Your task to perform on an android device: change alarm snooze length Image 0: 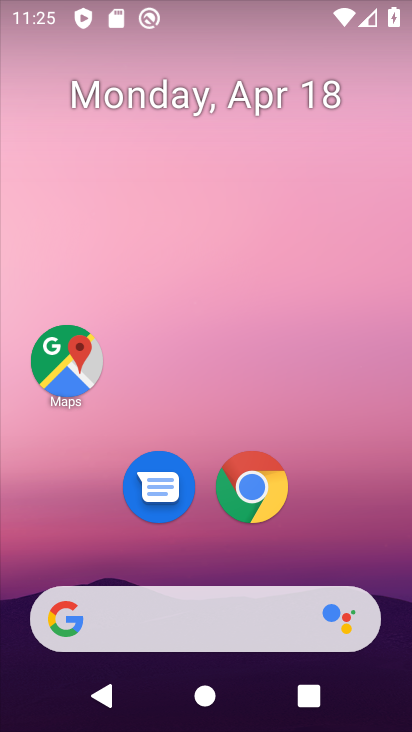
Step 0: drag from (208, 569) to (199, 0)
Your task to perform on an android device: change alarm snooze length Image 1: 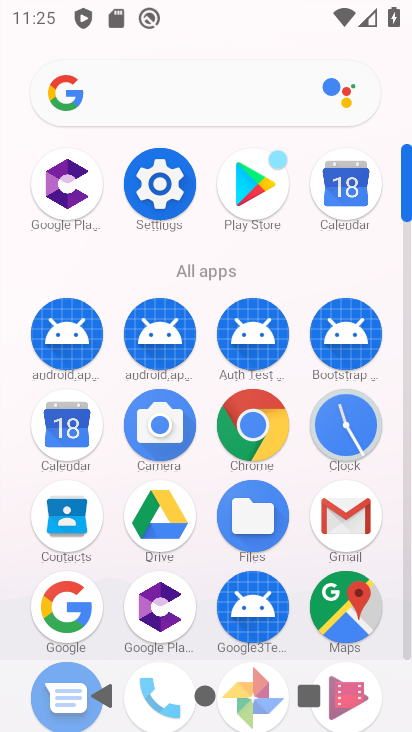
Step 1: click (349, 426)
Your task to perform on an android device: change alarm snooze length Image 2: 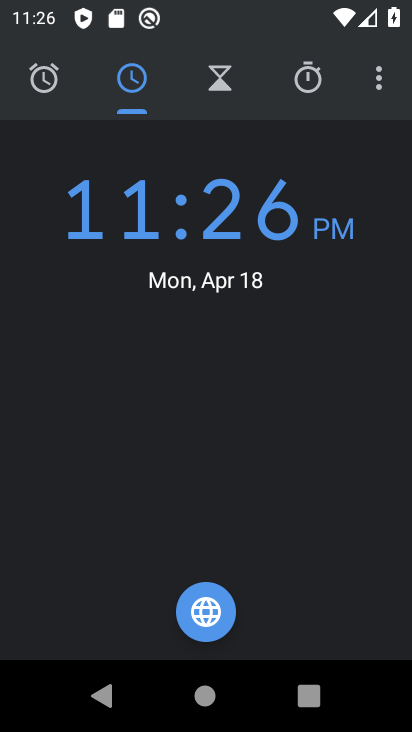
Step 2: click (377, 85)
Your task to perform on an android device: change alarm snooze length Image 3: 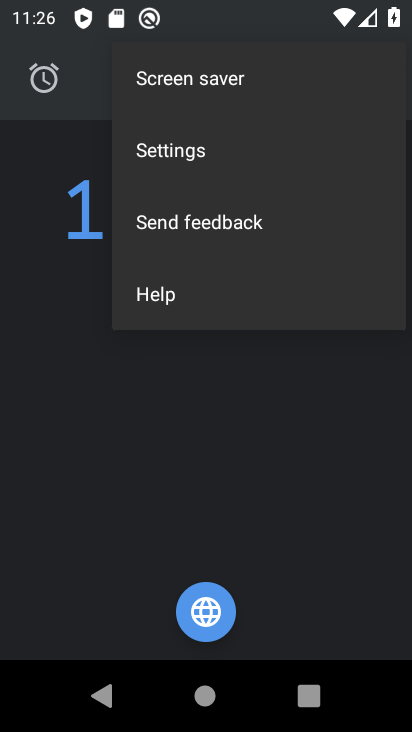
Step 3: click (185, 152)
Your task to perform on an android device: change alarm snooze length Image 4: 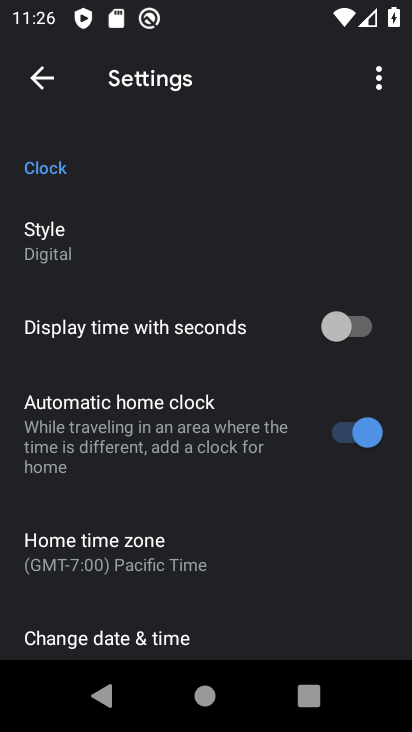
Step 4: drag from (216, 528) to (183, 172)
Your task to perform on an android device: change alarm snooze length Image 5: 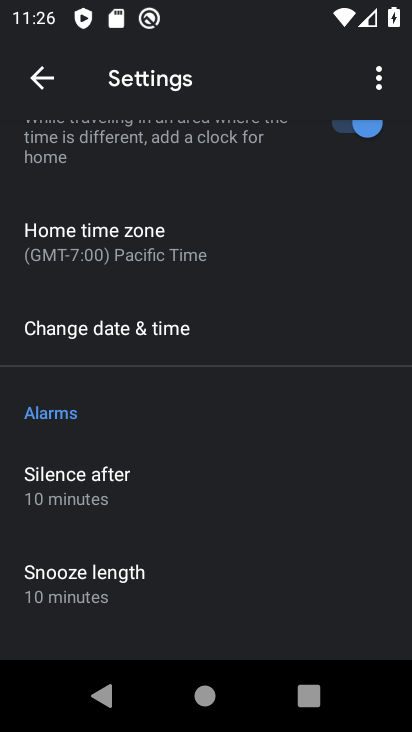
Step 5: drag from (204, 562) to (187, 320)
Your task to perform on an android device: change alarm snooze length Image 6: 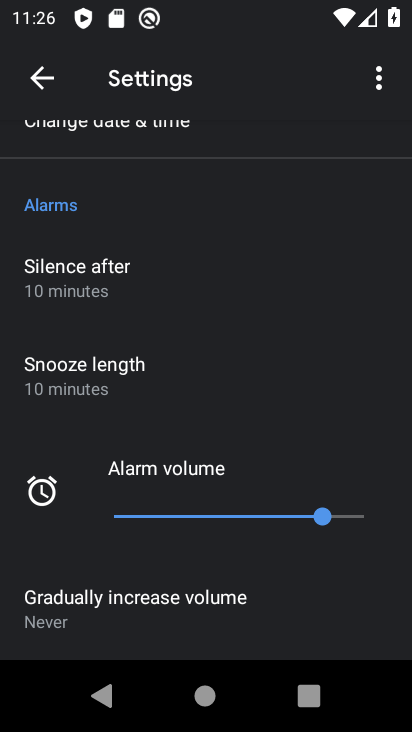
Step 6: click (115, 368)
Your task to perform on an android device: change alarm snooze length Image 7: 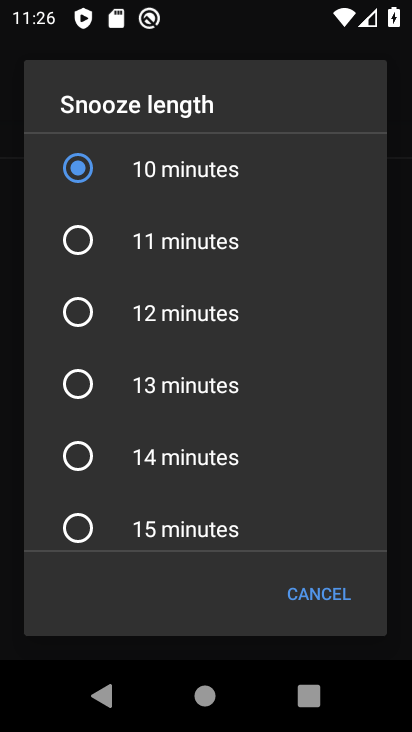
Step 7: click (79, 246)
Your task to perform on an android device: change alarm snooze length Image 8: 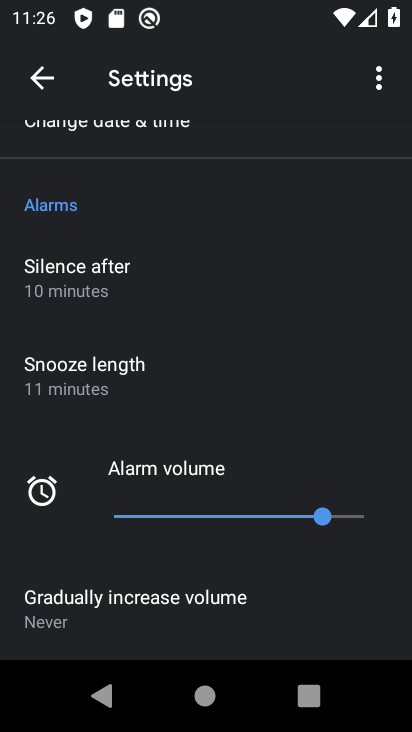
Step 8: task complete